Your task to perform on an android device: turn pop-ups on in chrome Image 0: 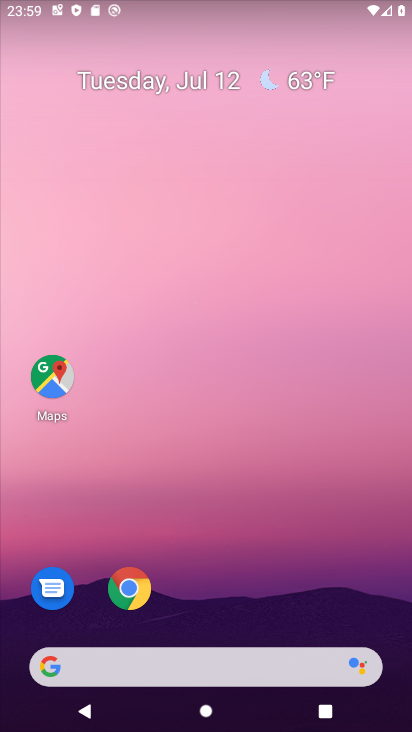
Step 0: click (123, 581)
Your task to perform on an android device: turn pop-ups on in chrome Image 1: 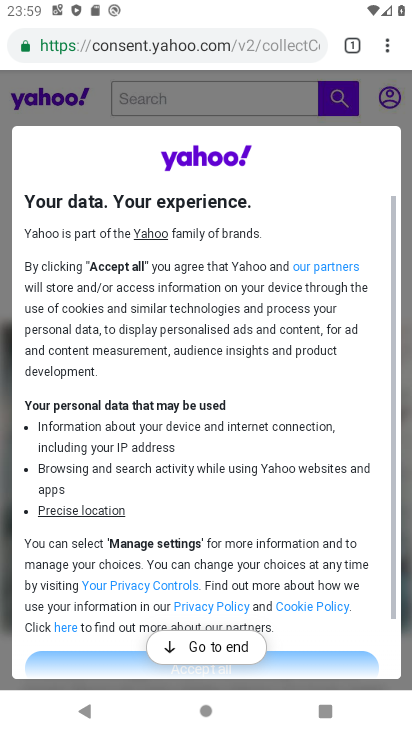
Step 1: click (385, 46)
Your task to perform on an android device: turn pop-ups on in chrome Image 2: 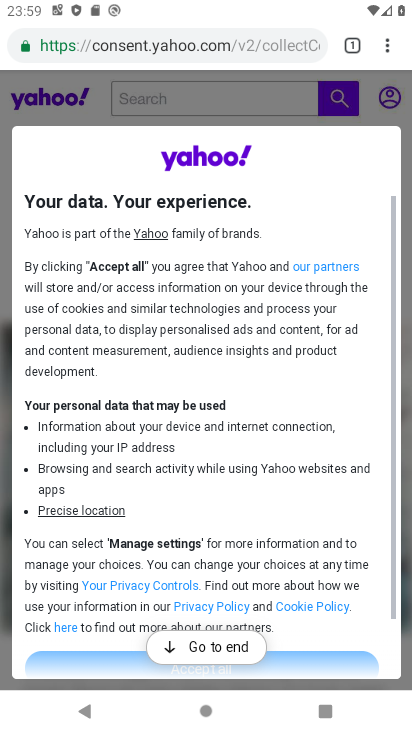
Step 2: click (386, 43)
Your task to perform on an android device: turn pop-ups on in chrome Image 3: 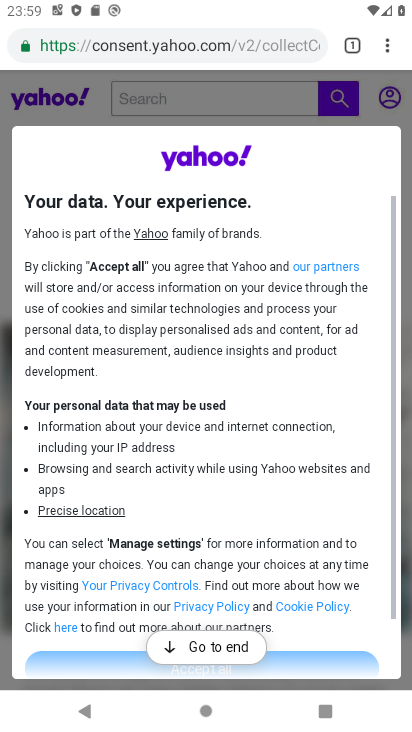
Step 3: click (392, 41)
Your task to perform on an android device: turn pop-ups on in chrome Image 4: 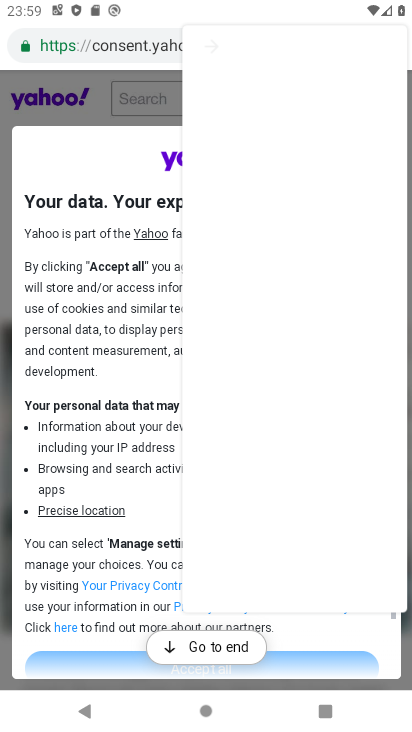
Step 4: click (388, 50)
Your task to perform on an android device: turn pop-ups on in chrome Image 5: 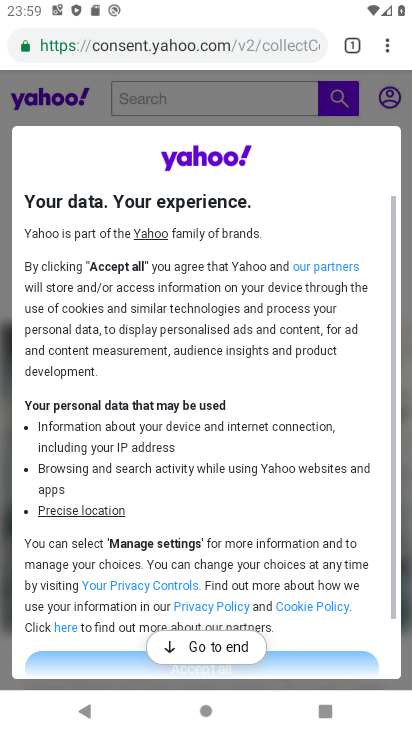
Step 5: click (385, 39)
Your task to perform on an android device: turn pop-ups on in chrome Image 6: 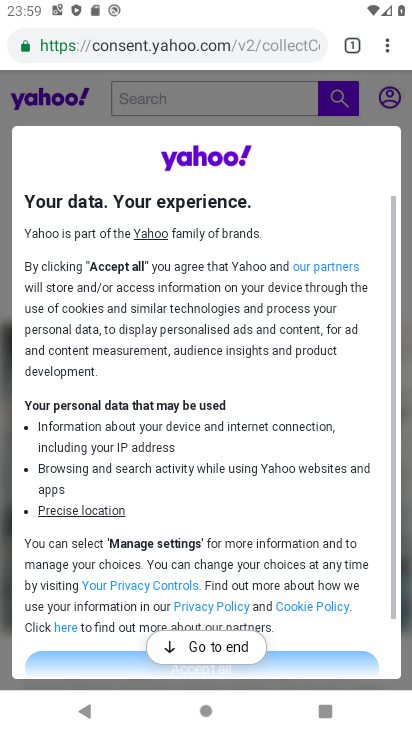
Step 6: click (385, 39)
Your task to perform on an android device: turn pop-ups on in chrome Image 7: 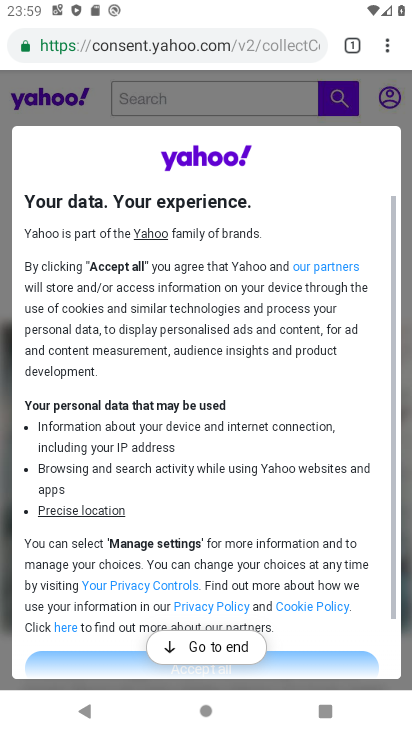
Step 7: click (383, 48)
Your task to perform on an android device: turn pop-ups on in chrome Image 8: 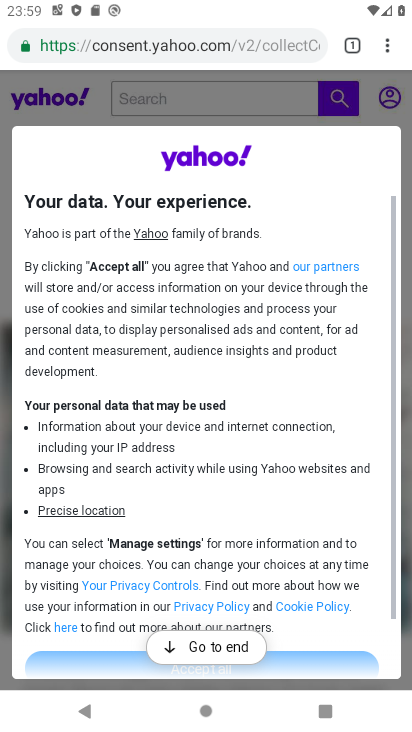
Step 8: task complete